Your task to perform on an android device: Go to battery settings Image 0: 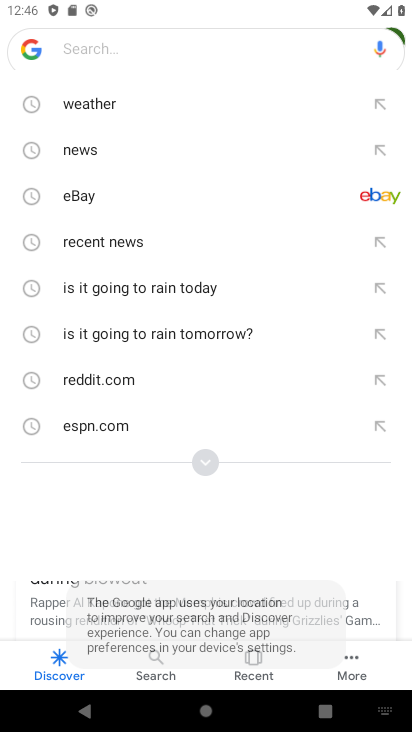
Step 0: press home button
Your task to perform on an android device: Go to battery settings Image 1: 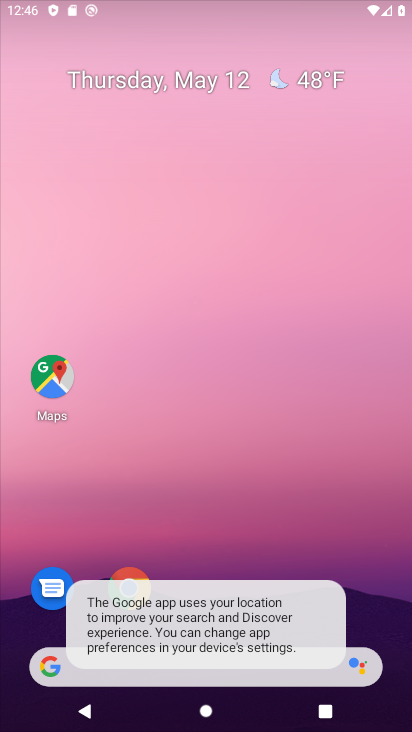
Step 1: drag from (212, 557) to (246, 130)
Your task to perform on an android device: Go to battery settings Image 2: 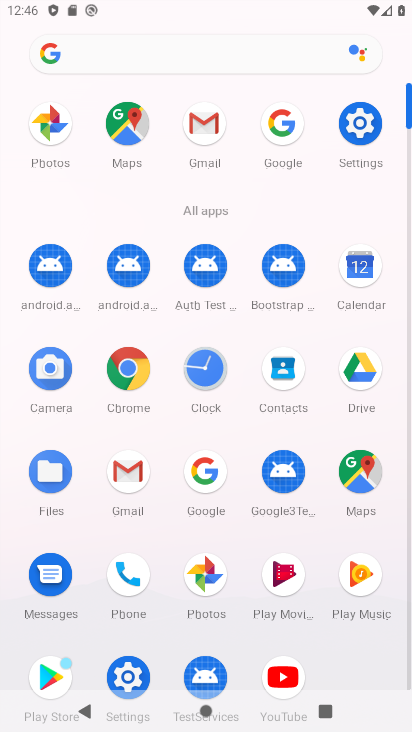
Step 2: click (360, 123)
Your task to perform on an android device: Go to battery settings Image 3: 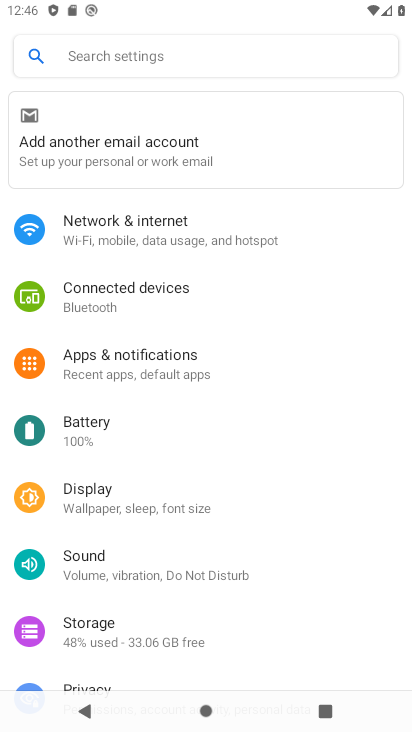
Step 3: click (101, 425)
Your task to perform on an android device: Go to battery settings Image 4: 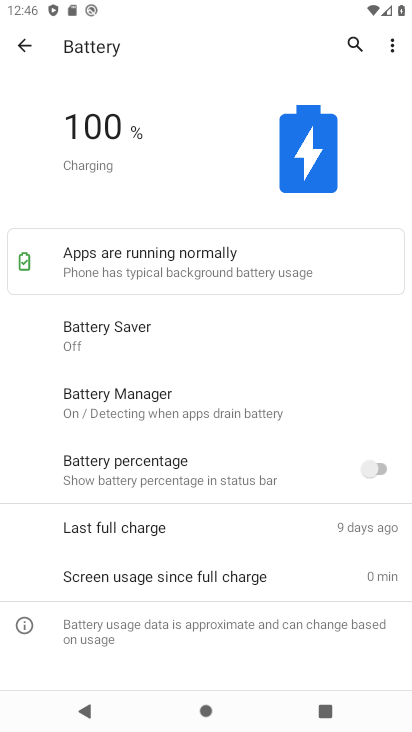
Step 4: task complete